Your task to perform on an android device: Open calendar and show me the second week of next month Image 0: 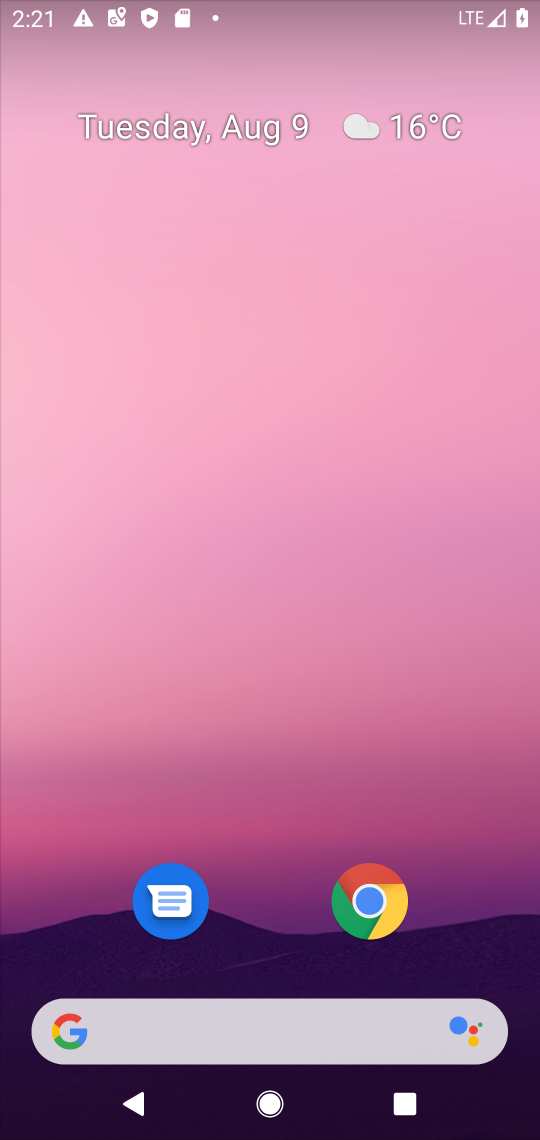
Step 0: drag from (505, 976) to (458, 247)
Your task to perform on an android device: Open calendar and show me the second week of next month Image 1: 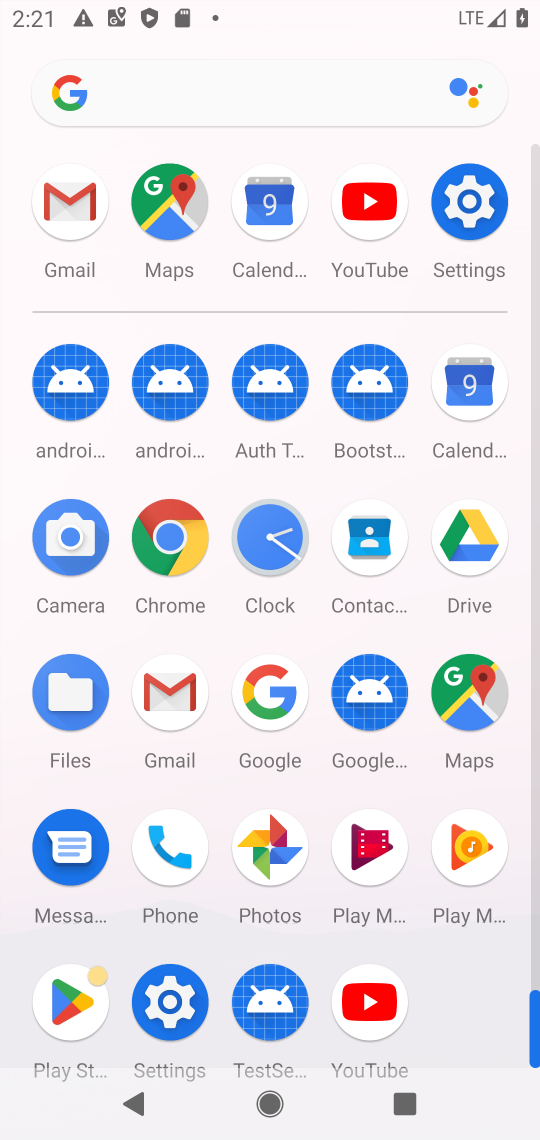
Step 1: click (470, 383)
Your task to perform on an android device: Open calendar and show me the second week of next month Image 2: 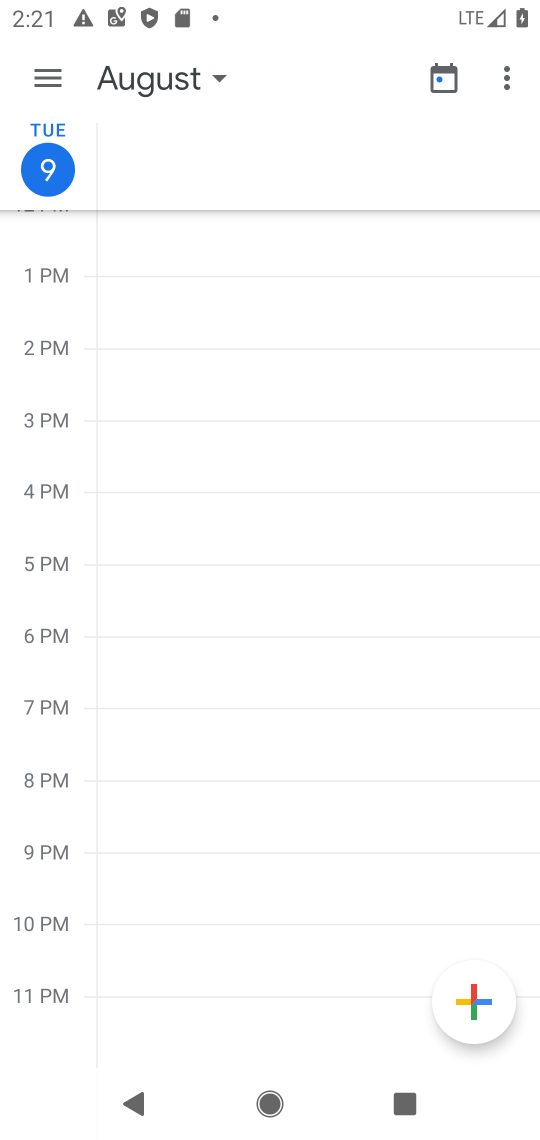
Step 2: click (358, 308)
Your task to perform on an android device: Open calendar and show me the second week of next month Image 3: 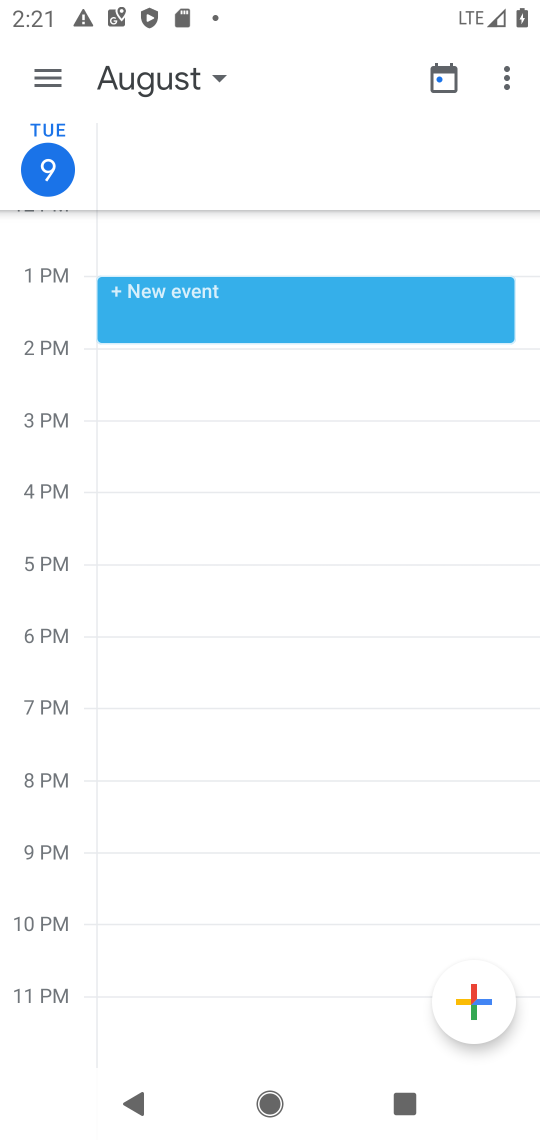
Step 3: click (51, 74)
Your task to perform on an android device: Open calendar and show me the second week of next month Image 4: 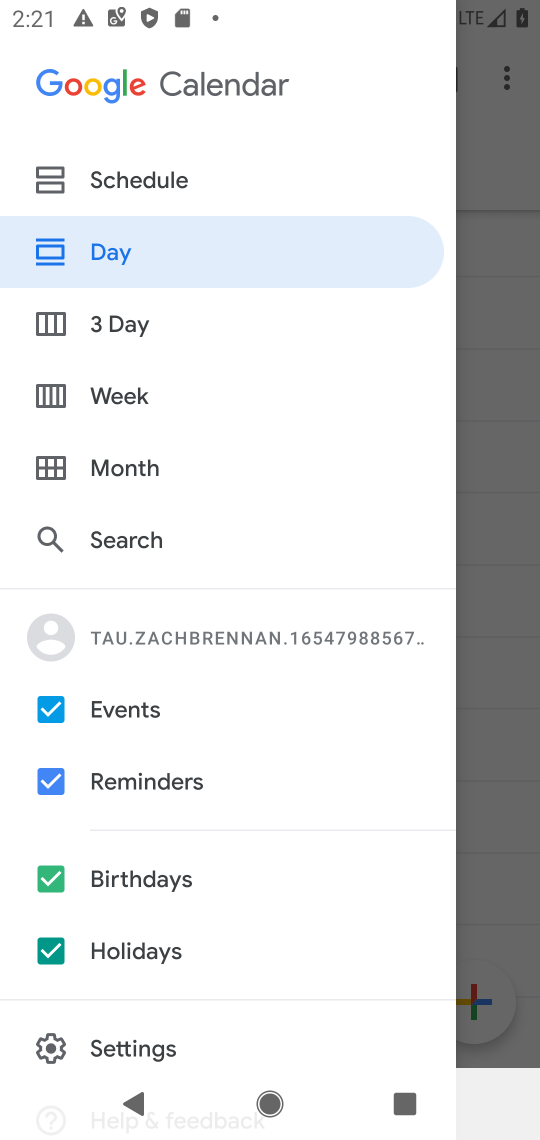
Step 4: click (133, 393)
Your task to perform on an android device: Open calendar and show me the second week of next month Image 5: 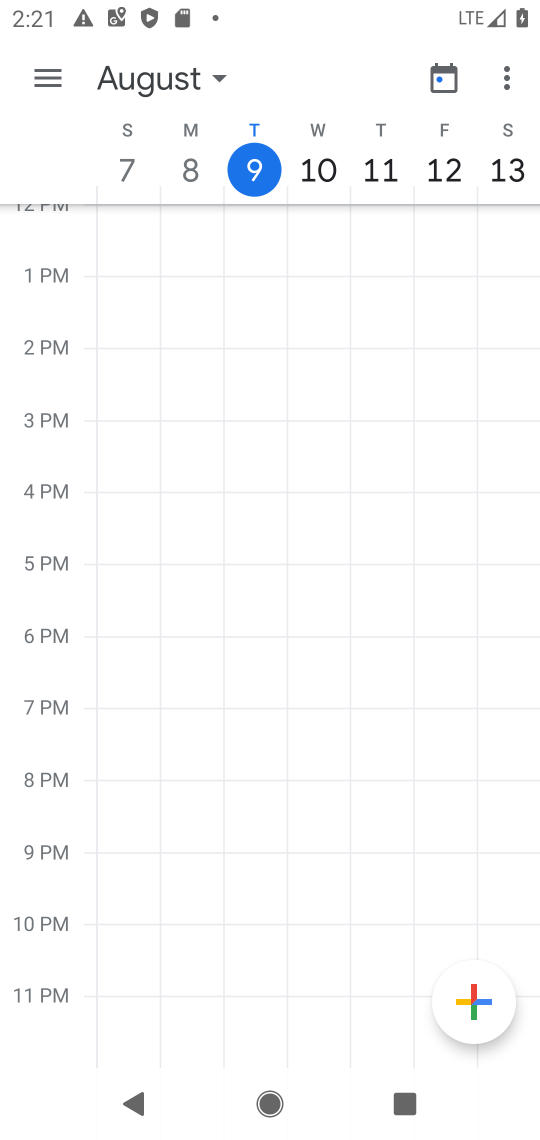
Step 5: click (223, 63)
Your task to perform on an android device: Open calendar and show me the second week of next month Image 6: 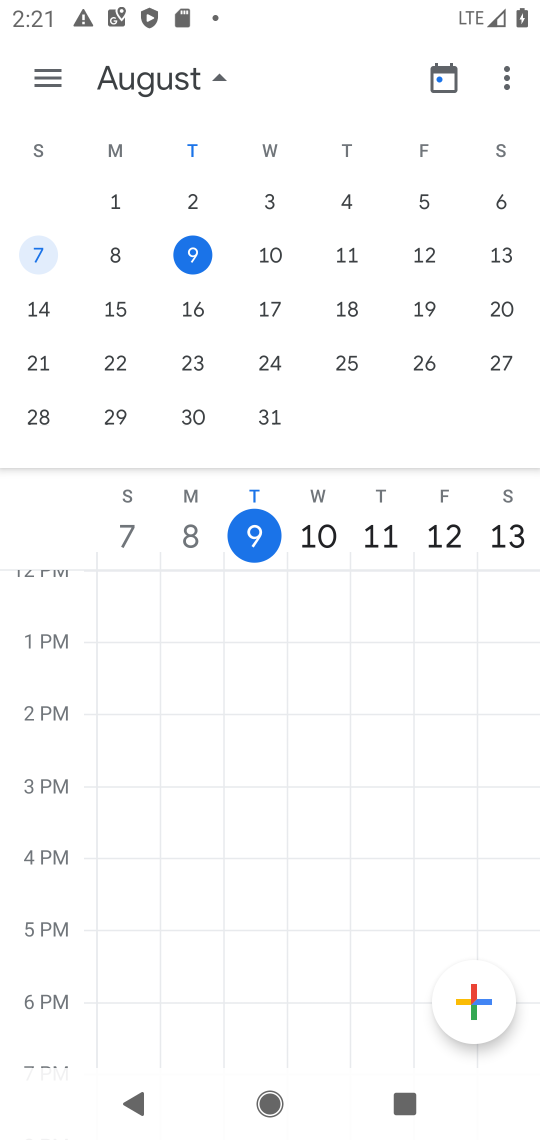
Step 6: drag from (492, 288) to (55, 284)
Your task to perform on an android device: Open calendar and show me the second week of next month Image 7: 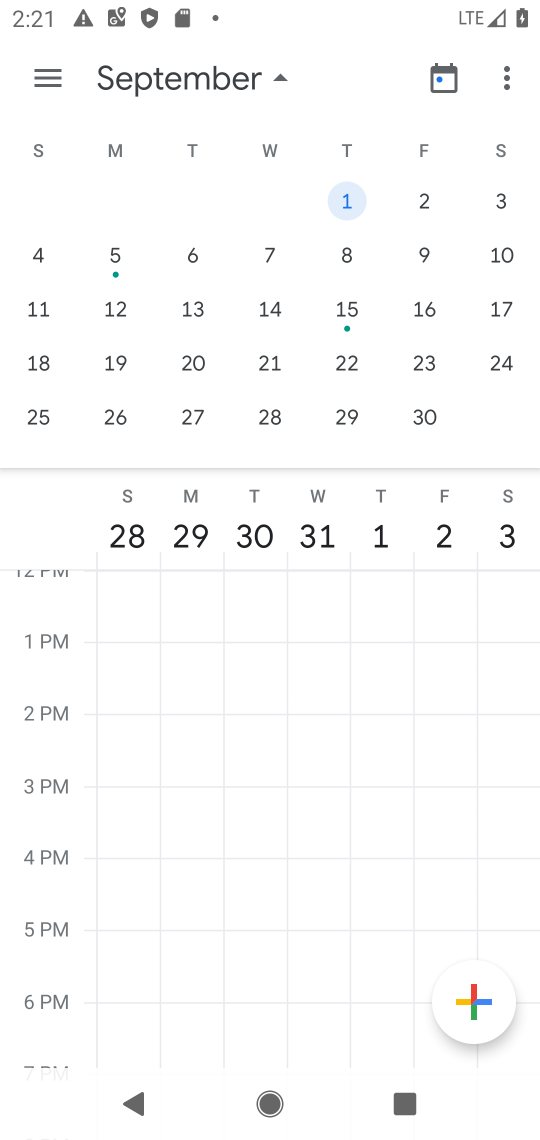
Step 7: click (36, 301)
Your task to perform on an android device: Open calendar and show me the second week of next month Image 8: 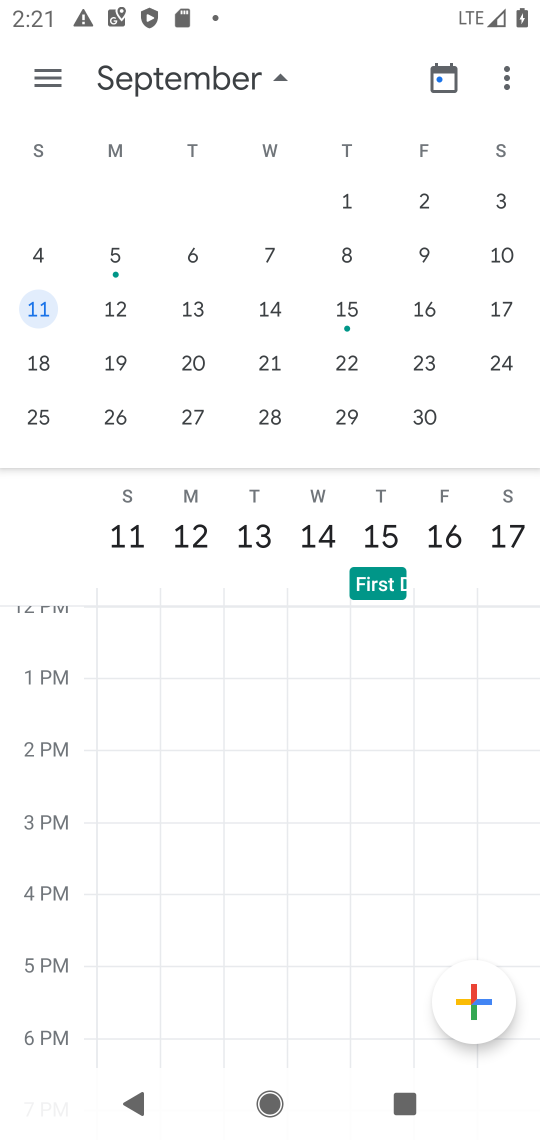
Step 8: task complete